Your task to perform on an android device: Do I have any events tomorrow? Image 0: 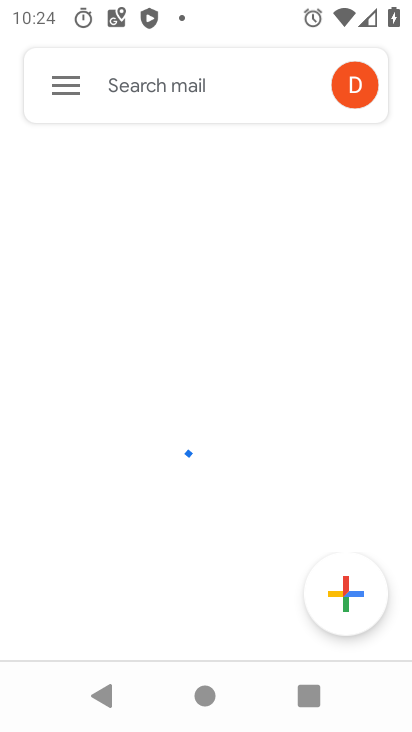
Step 0: press home button
Your task to perform on an android device: Do I have any events tomorrow? Image 1: 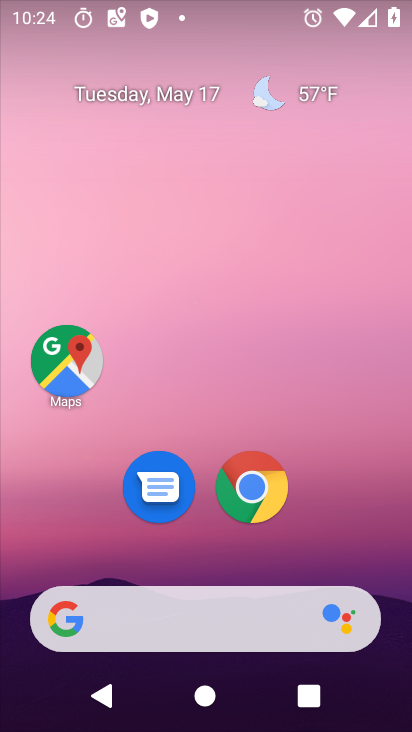
Step 1: drag from (234, 720) to (230, 175)
Your task to perform on an android device: Do I have any events tomorrow? Image 2: 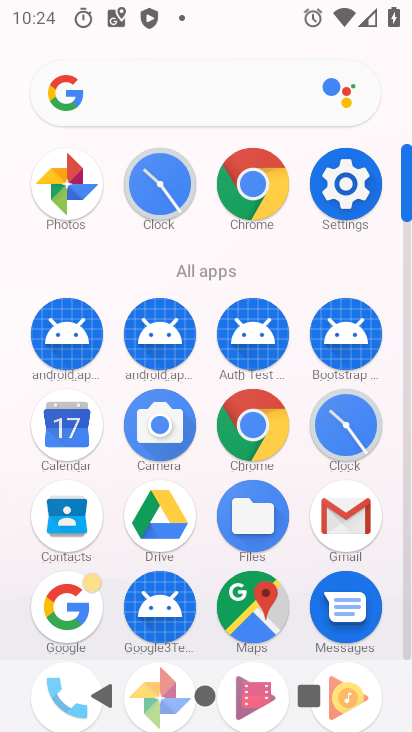
Step 2: click (56, 431)
Your task to perform on an android device: Do I have any events tomorrow? Image 3: 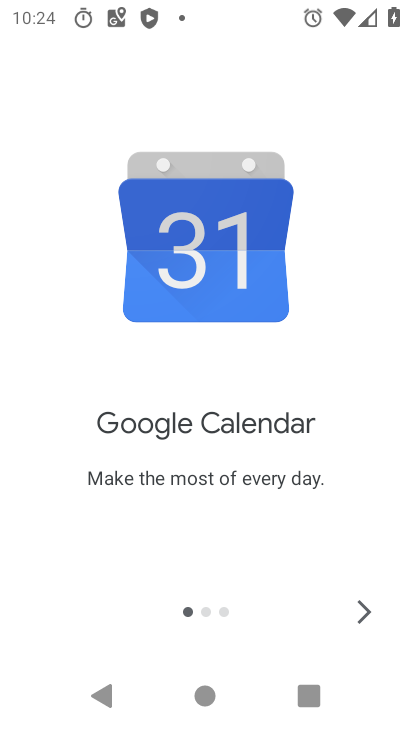
Step 3: click (366, 607)
Your task to perform on an android device: Do I have any events tomorrow? Image 4: 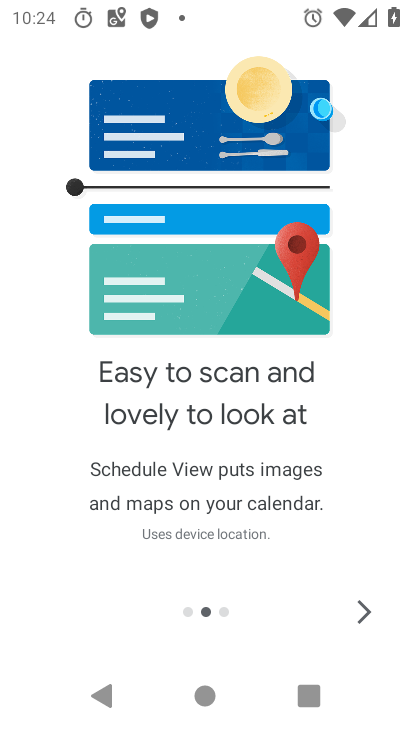
Step 4: click (366, 607)
Your task to perform on an android device: Do I have any events tomorrow? Image 5: 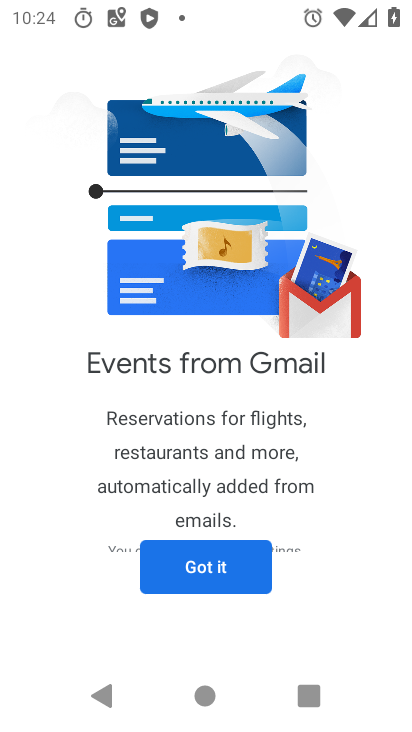
Step 5: click (221, 566)
Your task to perform on an android device: Do I have any events tomorrow? Image 6: 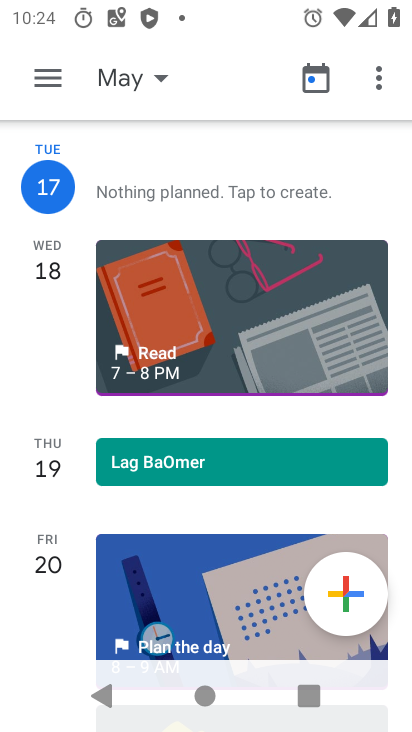
Step 6: click (129, 79)
Your task to perform on an android device: Do I have any events tomorrow? Image 7: 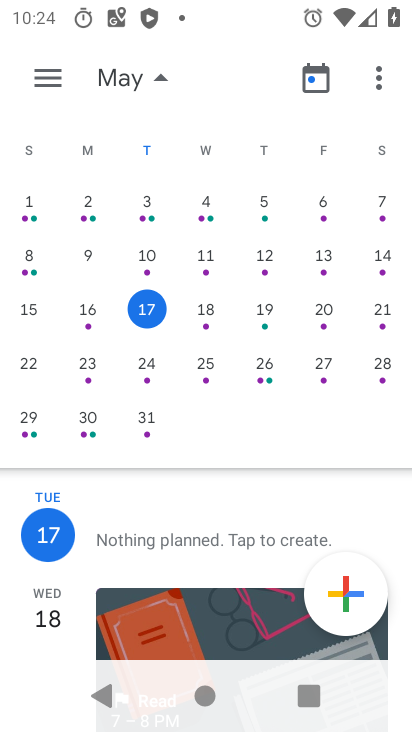
Step 7: click (209, 308)
Your task to perform on an android device: Do I have any events tomorrow? Image 8: 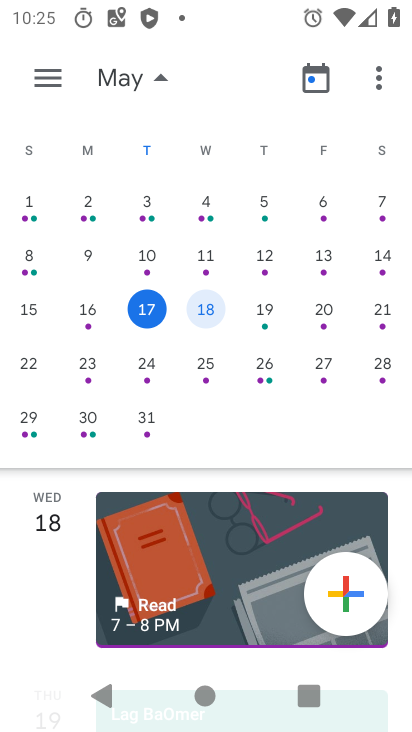
Step 8: task complete